Your task to perform on an android device: Check the news Image 0: 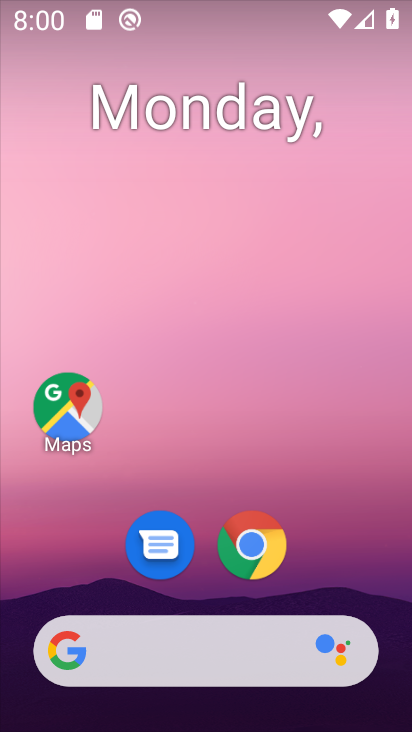
Step 0: drag from (49, 286) to (411, 279)
Your task to perform on an android device: Check the news Image 1: 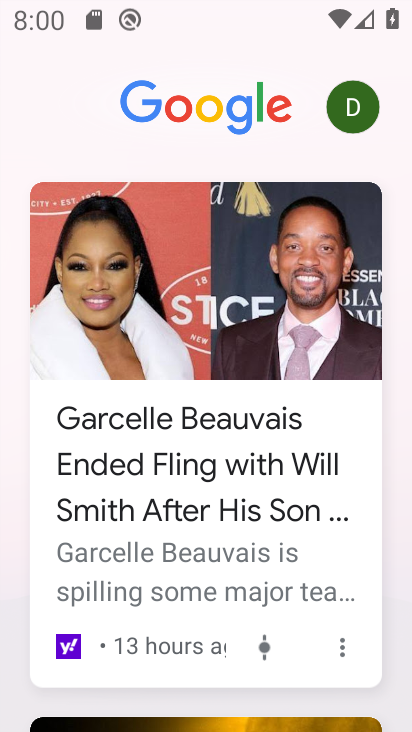
Step 1: click (356, 157)
Your task to perform on an android device: Check the news Image 2: 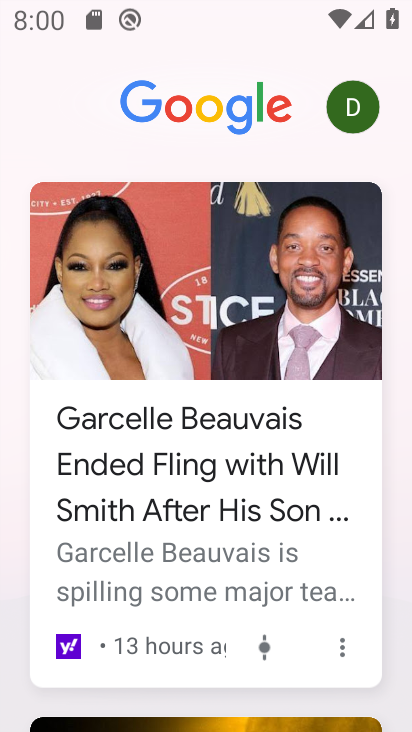
Step 2: task complete